Your task to perform on an android device: all mails in gmail Image 0: 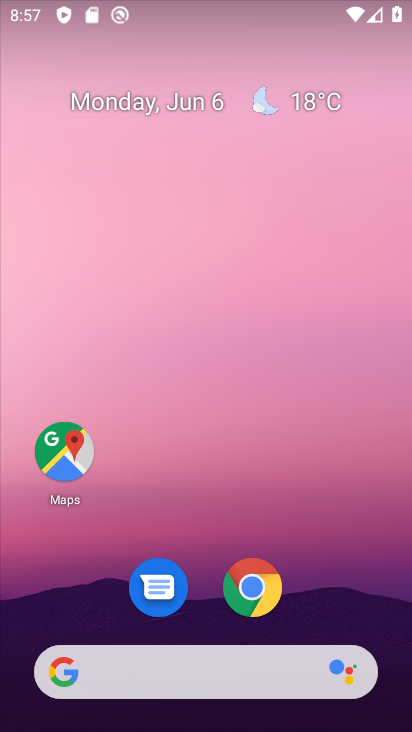
Step 0: drag from (314, 488) to (292, 108)
Your task to perform on an android device: all mails in gmail Image 1: 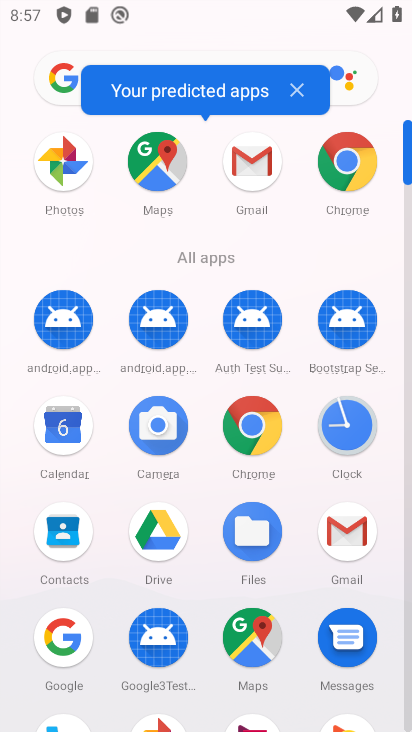
Step 1: click (234, 167)
Your task to perform on an android device: all mails in gmail Image 2: 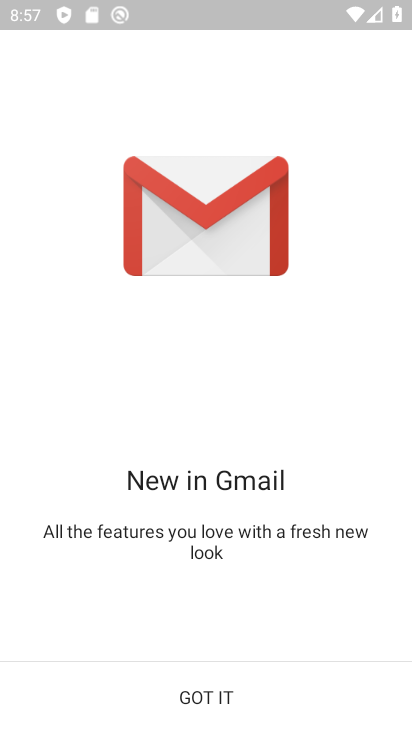
Step 2: click (247, 704)
Your task to perform on an android device: all mails in gmail Image 3: 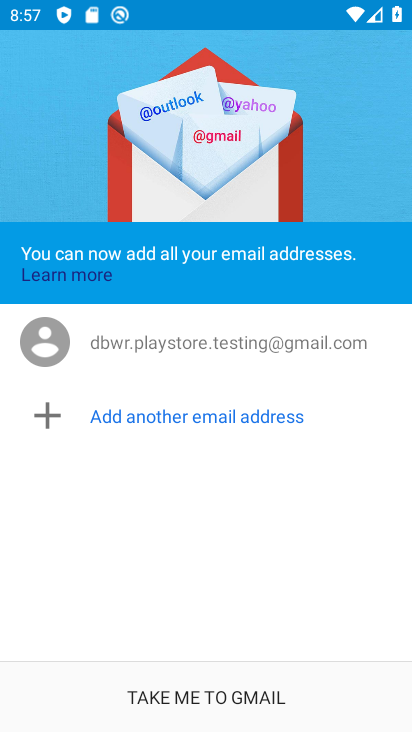
Step 3: click (263, 696)
Your task to perform on an android device: all mails in gmail Image 4: 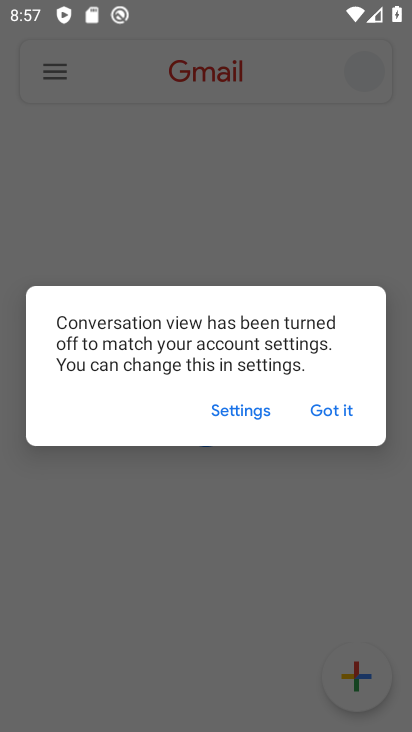
Step 4: click (336, 413)
Your task to perform on an android device: all mails in gmail Image 5: 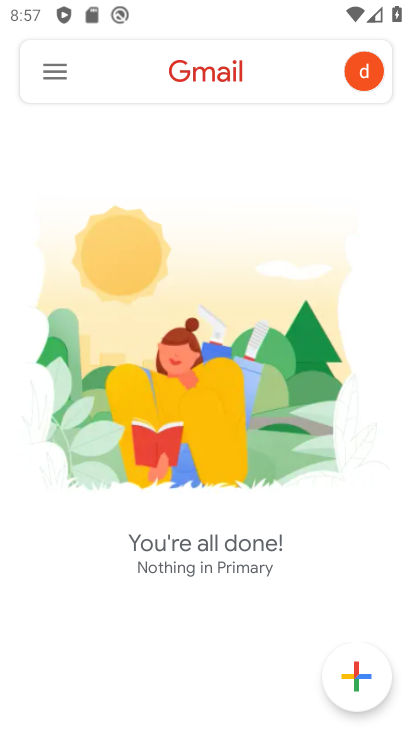
Step 5: click (33, 73)
Your task to perform on an android device: all mails in gmail Image 6: 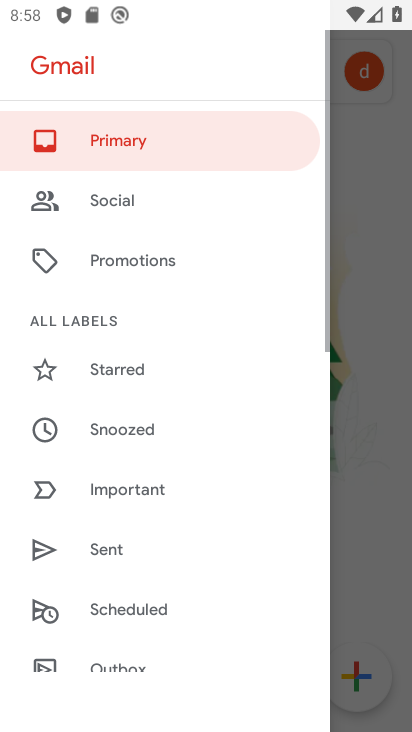
Step 6: drag from (129, 612) to (235, 67)
Your task to perform on an android device: all mails in gmail Image 7: 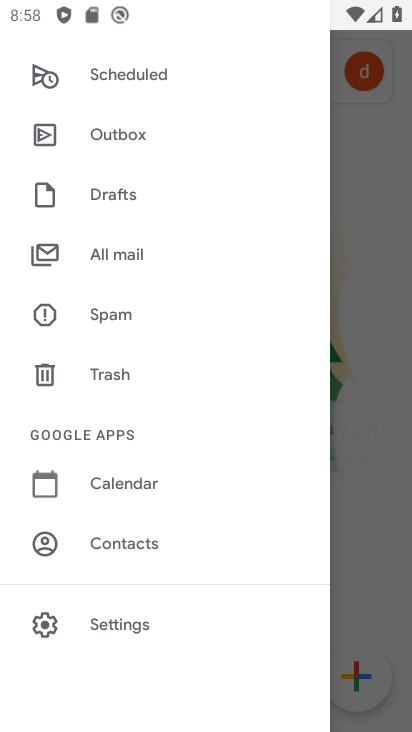
Step 7: click (125, 273)
Your task to perform on an android device: all mails in gmail Image 8: 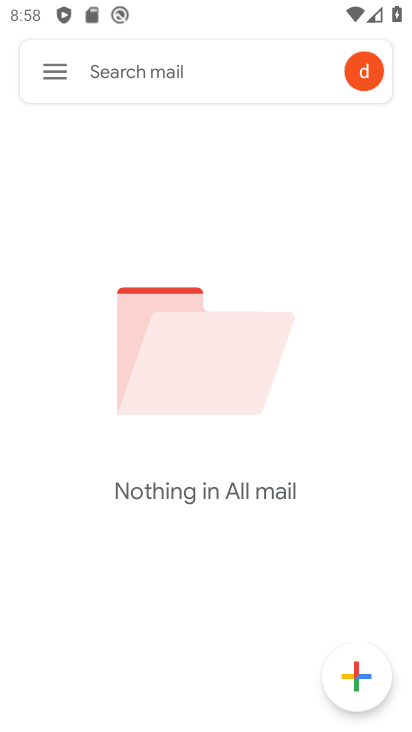
Step 8: task complete